Your task to perform on an android device: Open calendar and show me the third week of next month Image 0: 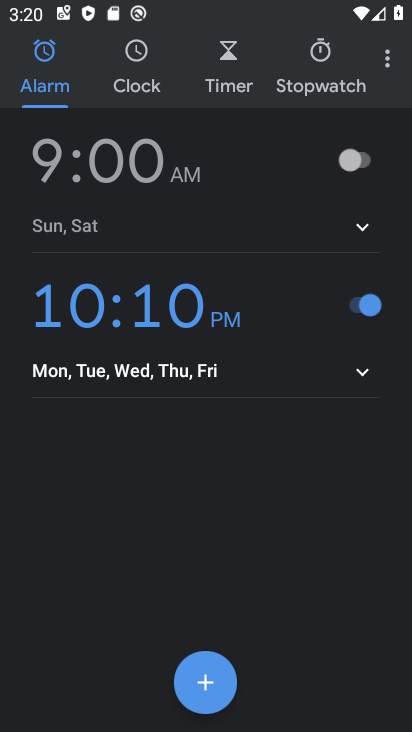
Step 0: press home button
Your task to perform on an android device: Open calendar and show me the third week of next month Image 1: 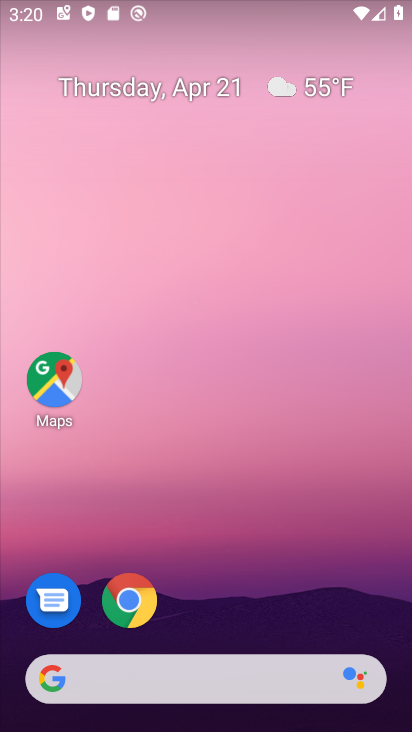
Step 1: drag from (162, 666) to (275, 197)
Your task to perform on an android device: Open calendar and show me the third week of next month Image 2: 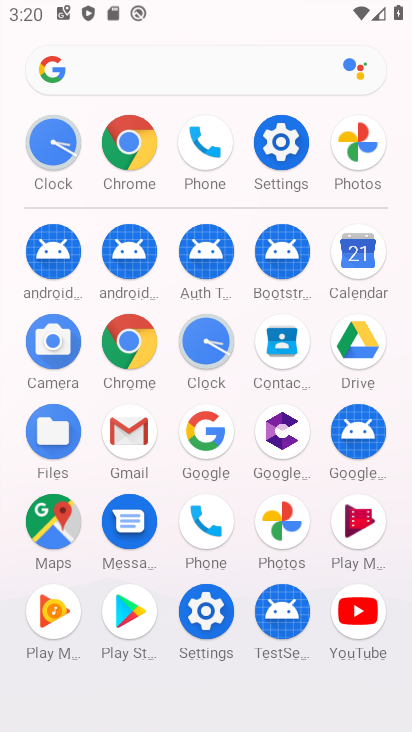
Step 2: click (359, 252)
Your task to perform on an android device: Open calendar and show me the third week of next month Image 3: 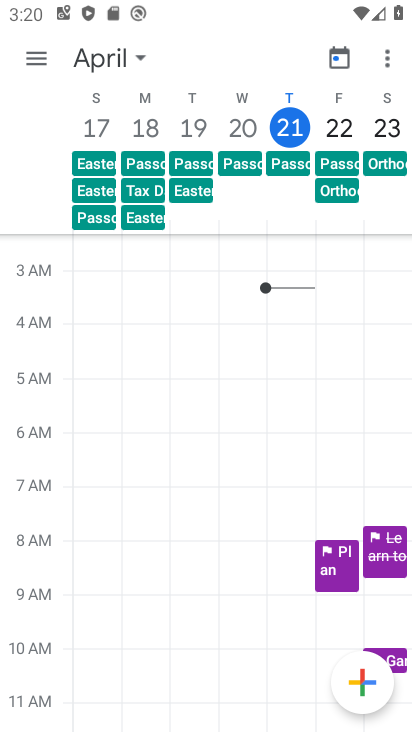
Step 3: click (113, 51)
Your task to perform on an android device: Open calendar and show me the third week of next month Image 4: 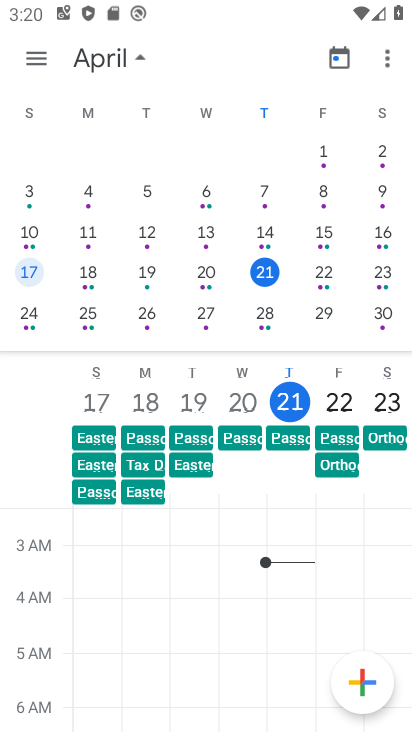
Step 4: drag from (387, 235) to (62, 220)
Your task to perform on an android device: Open calendar and show me the third week of next month Image 5: 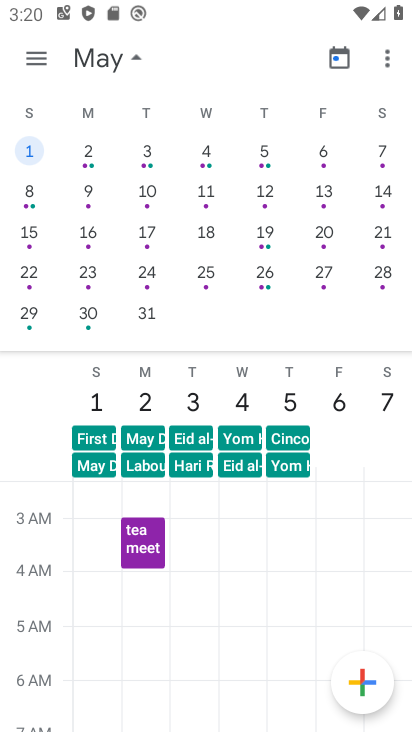
Step 5: click (32, 233)
Your task to perform on an android device: Open calendar and show me the third week of next month Image 6: 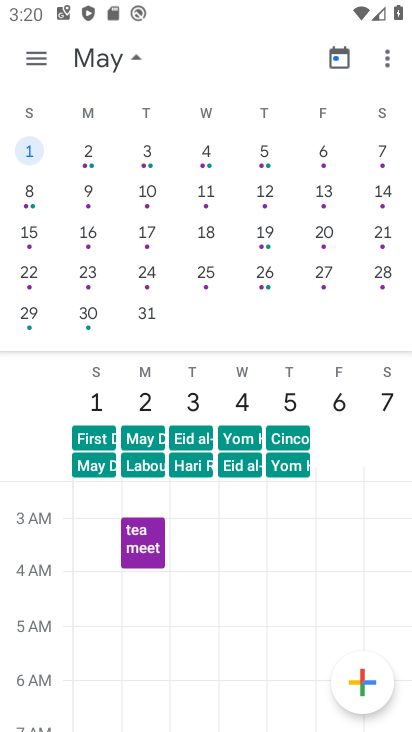
Step 6: click (35, 236)
Your task to perform on an android device: Open calendar and show me the third week of next month Image 7: 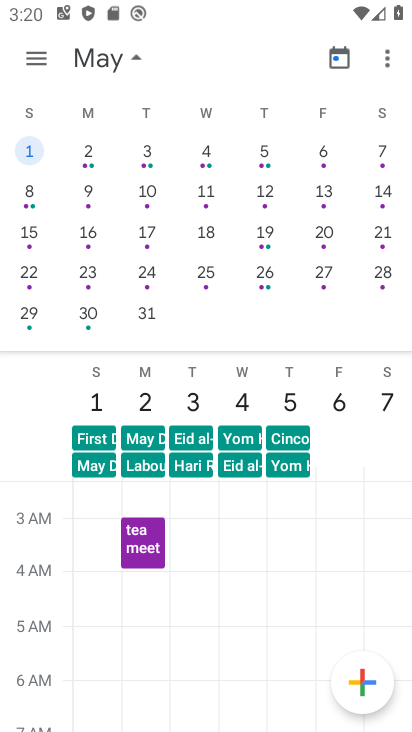
Step 7: click (29, 232)
Your task to perform on an android device: Open calendar and show me the third week of next month Image 8: 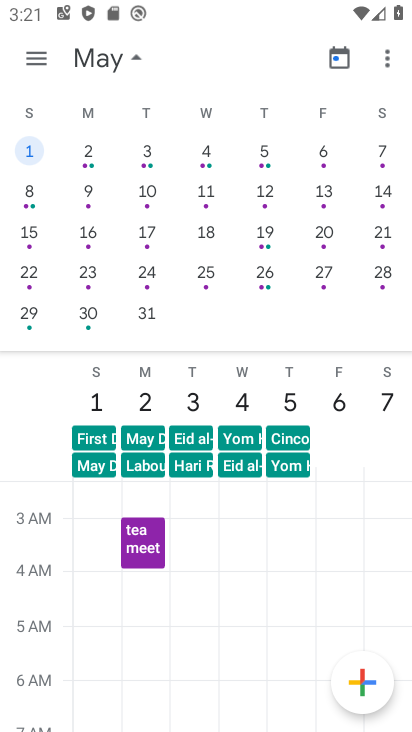
Step 8: click (35, 231)
Your task to perform on an android device: Open calendar and show me the third week of next month Image 9: 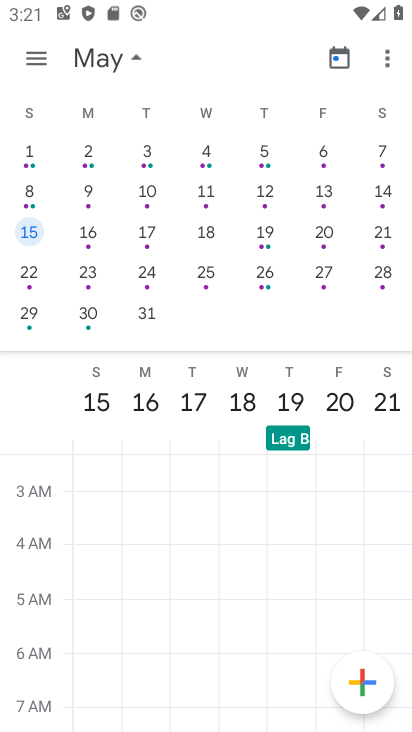
Step 9: click (36, 53)
Your task to perform on an android device: Open calendar and show me the third week of next month Image 10: 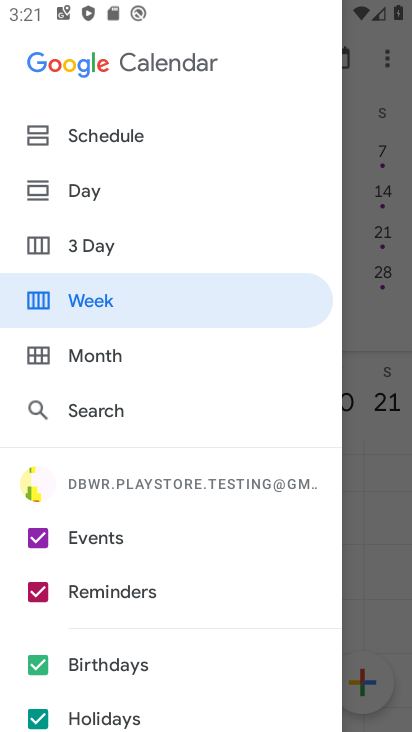
Step 10: click (94, 304)
Your task to perform on an android device: Open calendar and show me the third week of next month Image 11: 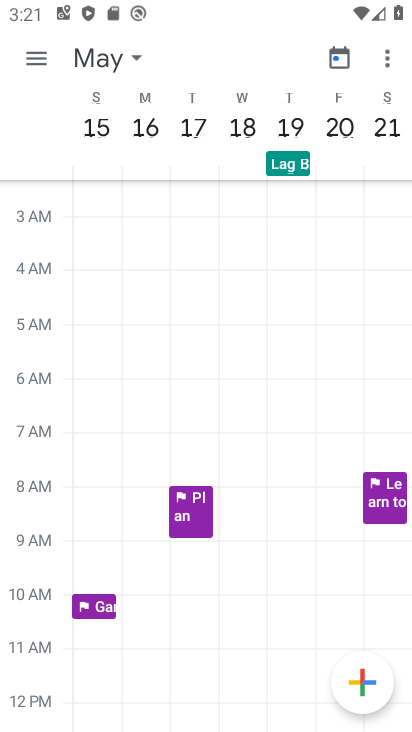
Step 11: task complete